Your task to perform on an android device: open app "Speedtest by Ookla" (install if not already installed) and enter user name: "hyena@outlook.com" and password: "terminators" Image 0: 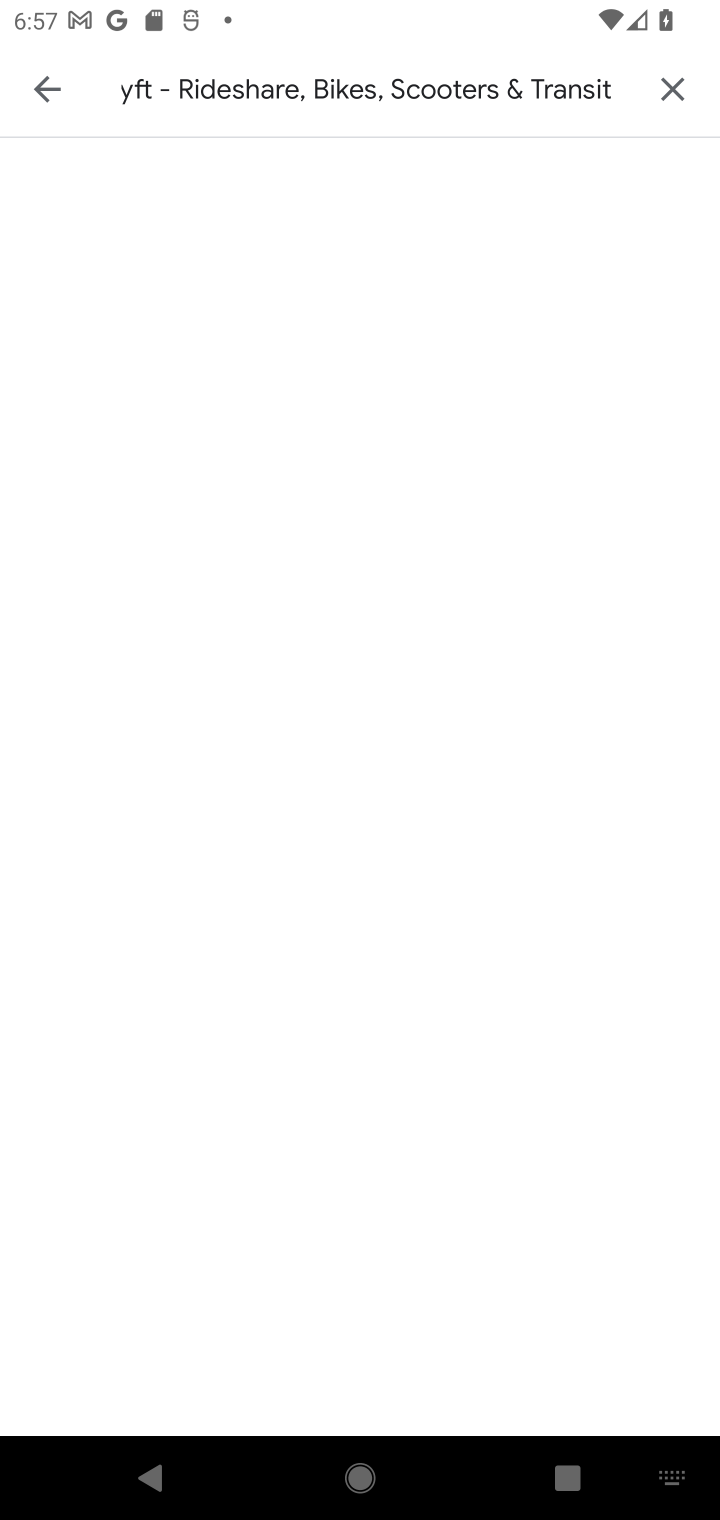
Step 0: press home button
Your task to perform on an android device: open app "Speedtest by Ookla" (install if not already installed) and enter user name: "hyena@outlook.com" and password: "terminators" Image 1: 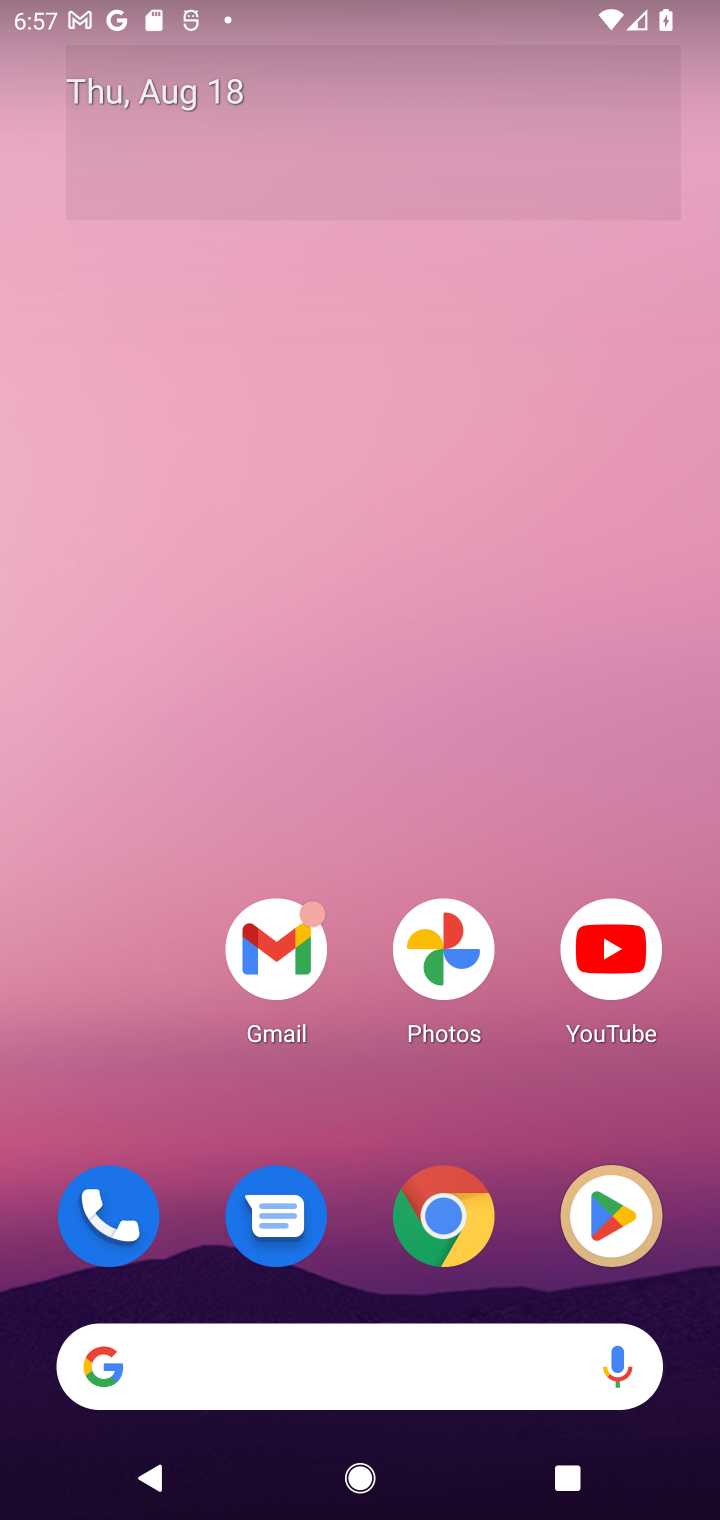
Step 1: drag from (536, 1273) to (500, 327)
Your task to perform on an android device: open app "Speedtest by Ookla" (install if not already installed) and enter user name: "hyena@outlook.com" and password: "terminators" Image 2: 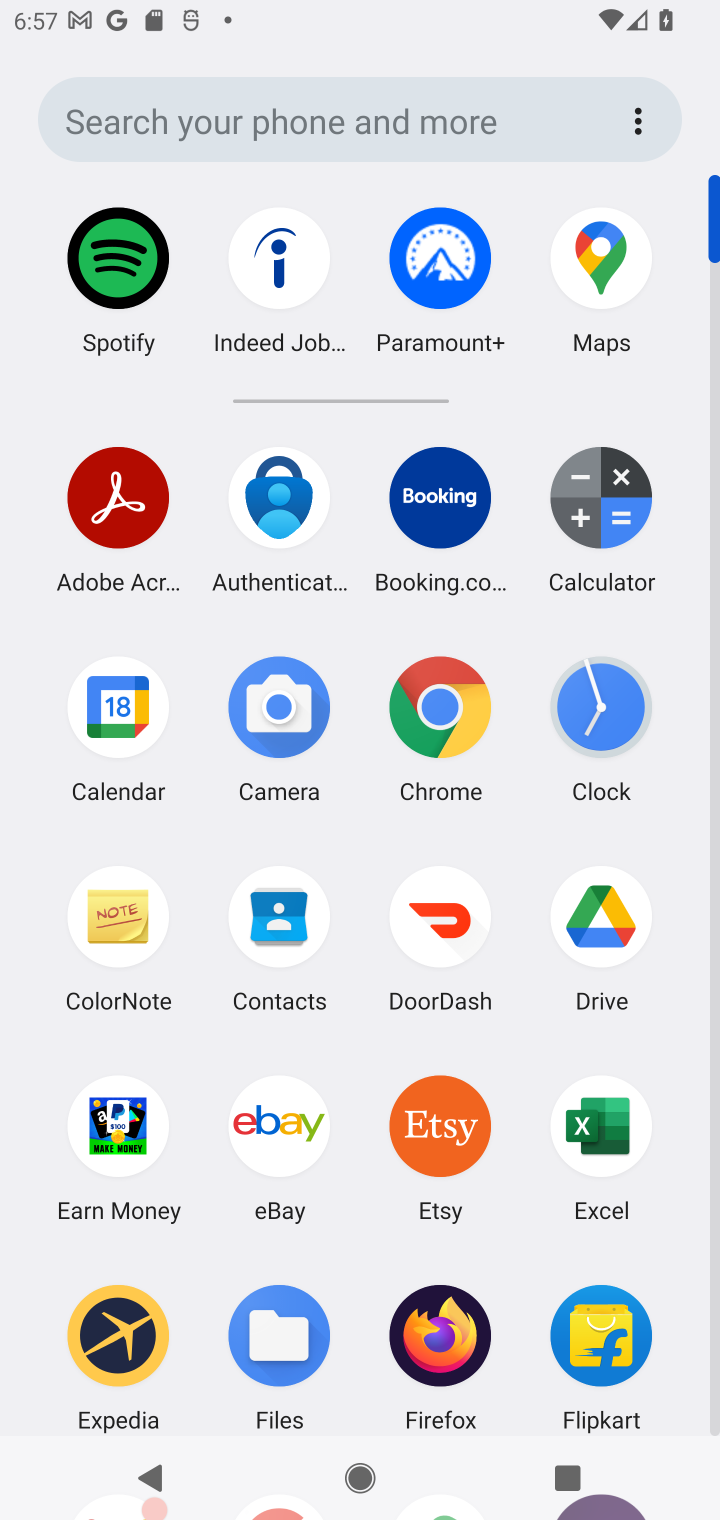
Step 2: drag from (526, 1289) to (528, 651)
Your task to perform on an android device: open app "Speedtest by Ookla" (install if not already installed) and enter user name: "hyena@outlook.com" and password: "terminators" Image 3: 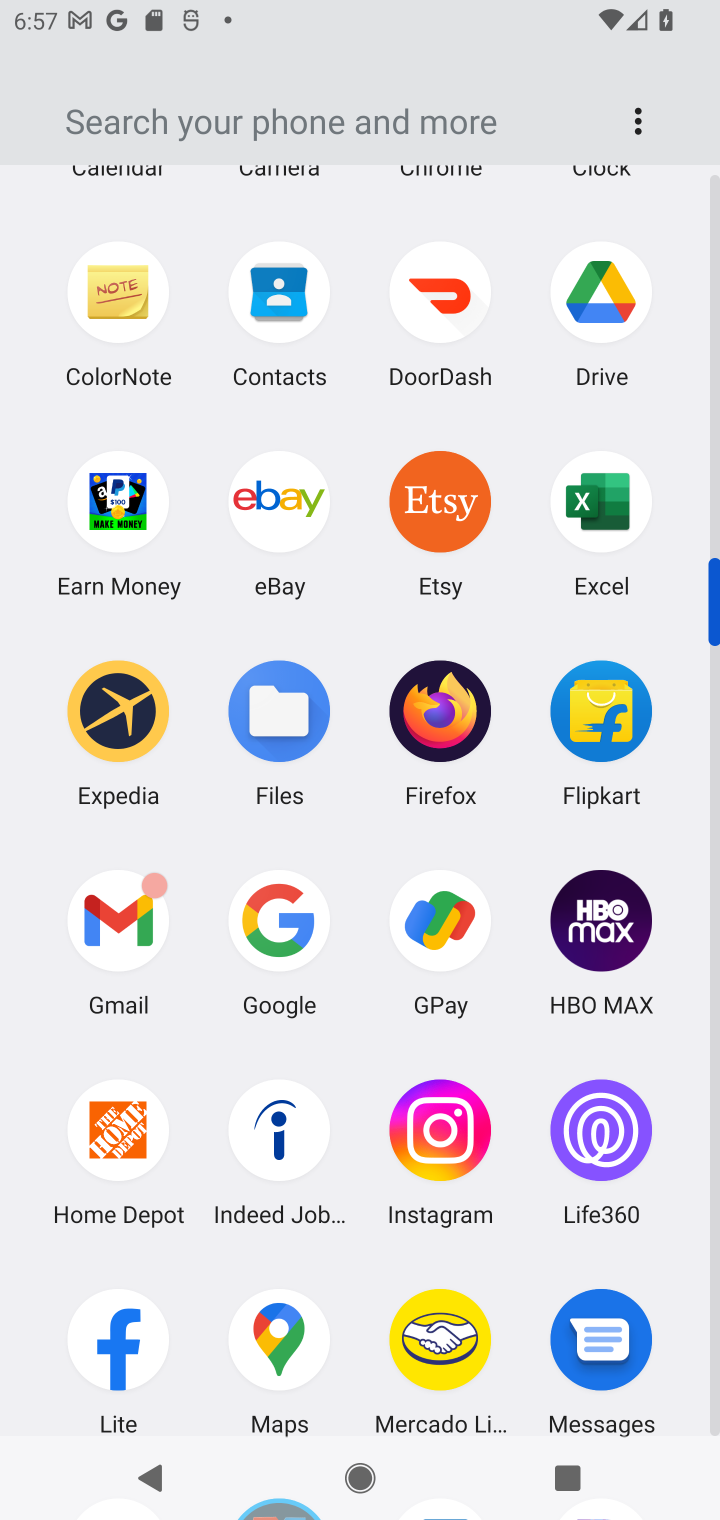
Step 3: drag from (523, 1254) to (527, 577)
Your task to perform on an android device: open app "Speedtest by Ookla" (install if not already installed) and enter user name: "hyena@outlook.com" and password: "terminators" Image 4: 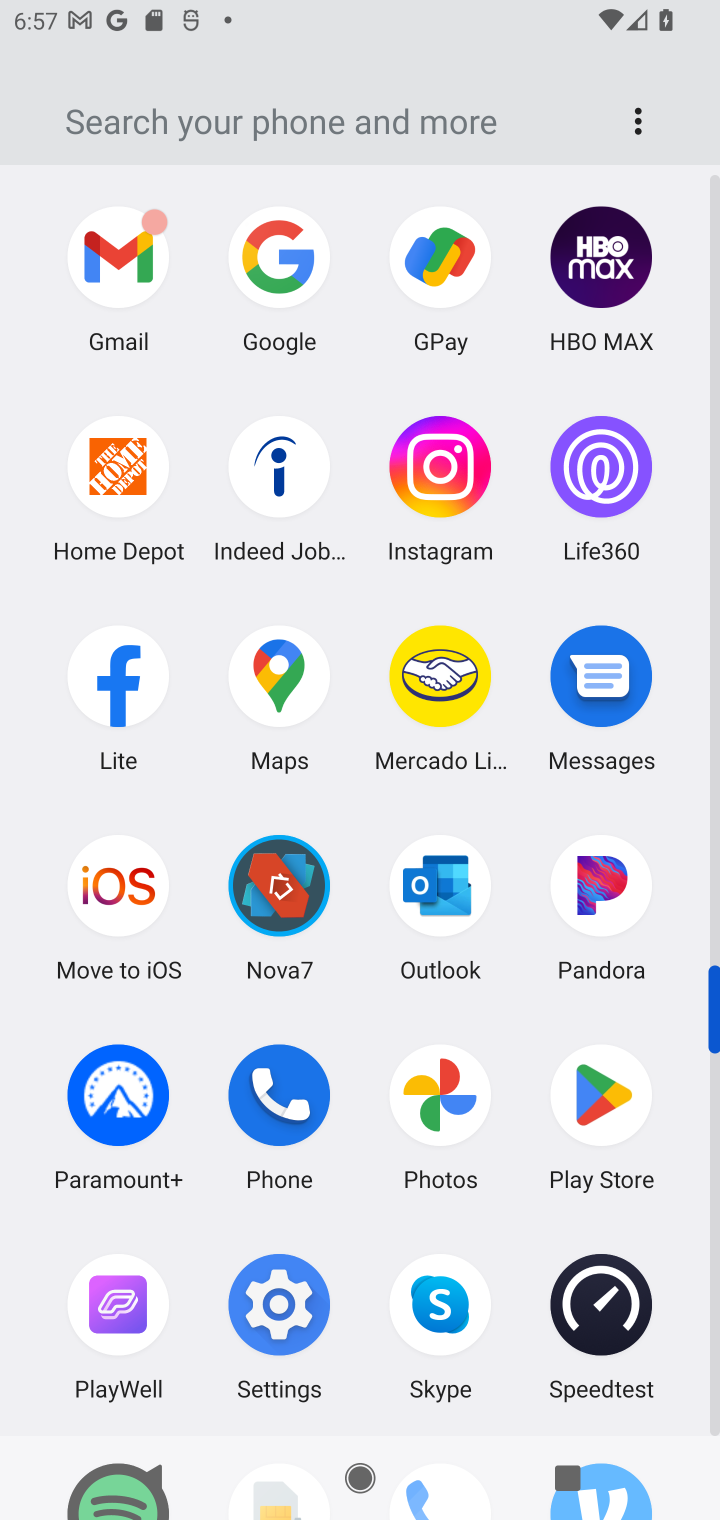
Step 4: click (601, 1307)
Your task to perform on an android device: open app "Speedtest by Ookla" (install if not already installed) and enter user name: "hyena@outlook.com" and password: "terminators" Image 5: 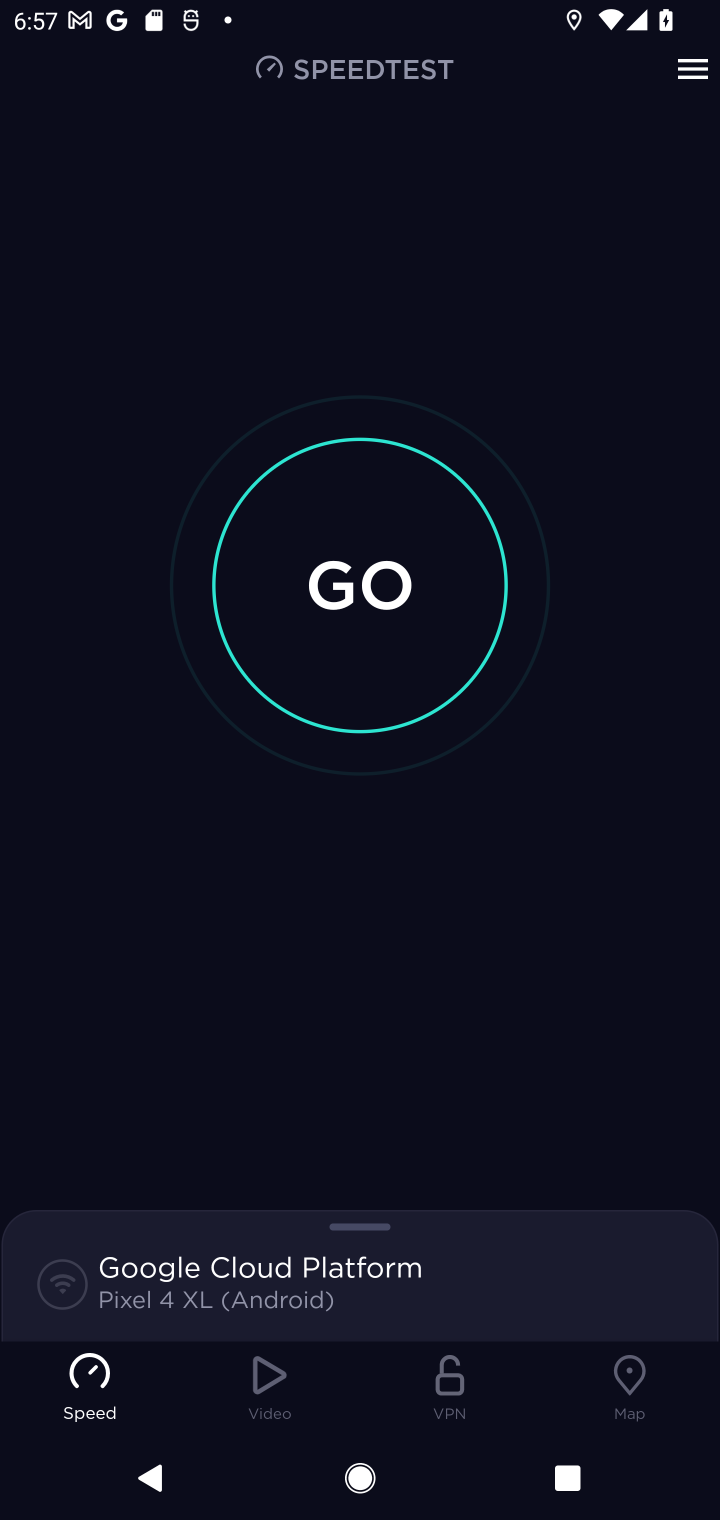
Step 5: click (673, 75)
Your task to perform on an android device: open app "Speedtest by Ookla" (install if not already installed) and enter user name: "hyena@outlook.com" and password: "terminators" Image 6: 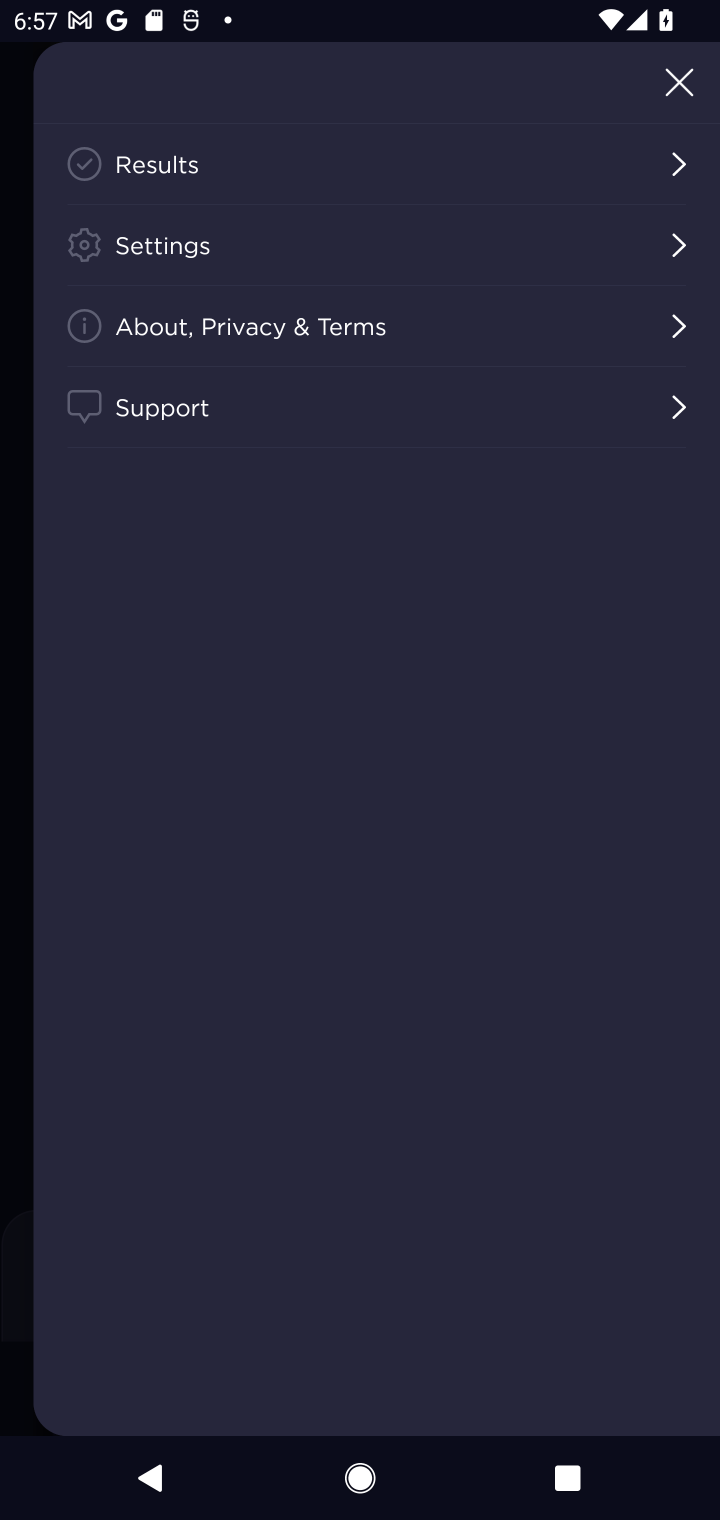
Step 6: click (668, 248)
Your task to perform on an android device: open app "Speedtest by Ookla" (install if not already installed) and enter user name: "hyena@outlook.com" and password: "terminators" Image 7: 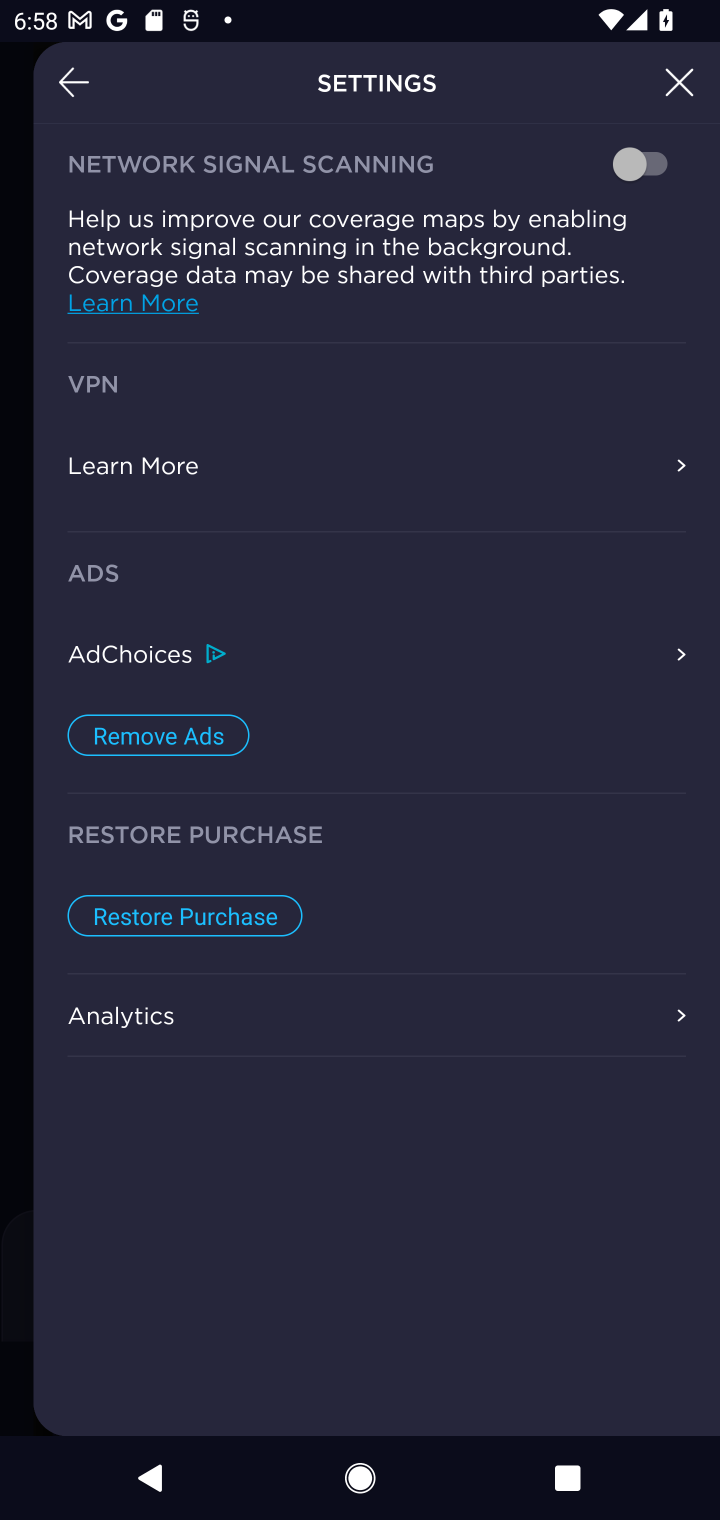
Step 7: click (677, 81)
Your task to perform on an android device: open app "Speedtest by Ookla" (install if not already installed) and enter user name: "hyena@outlook.com" and password: "terminators" Image 8: 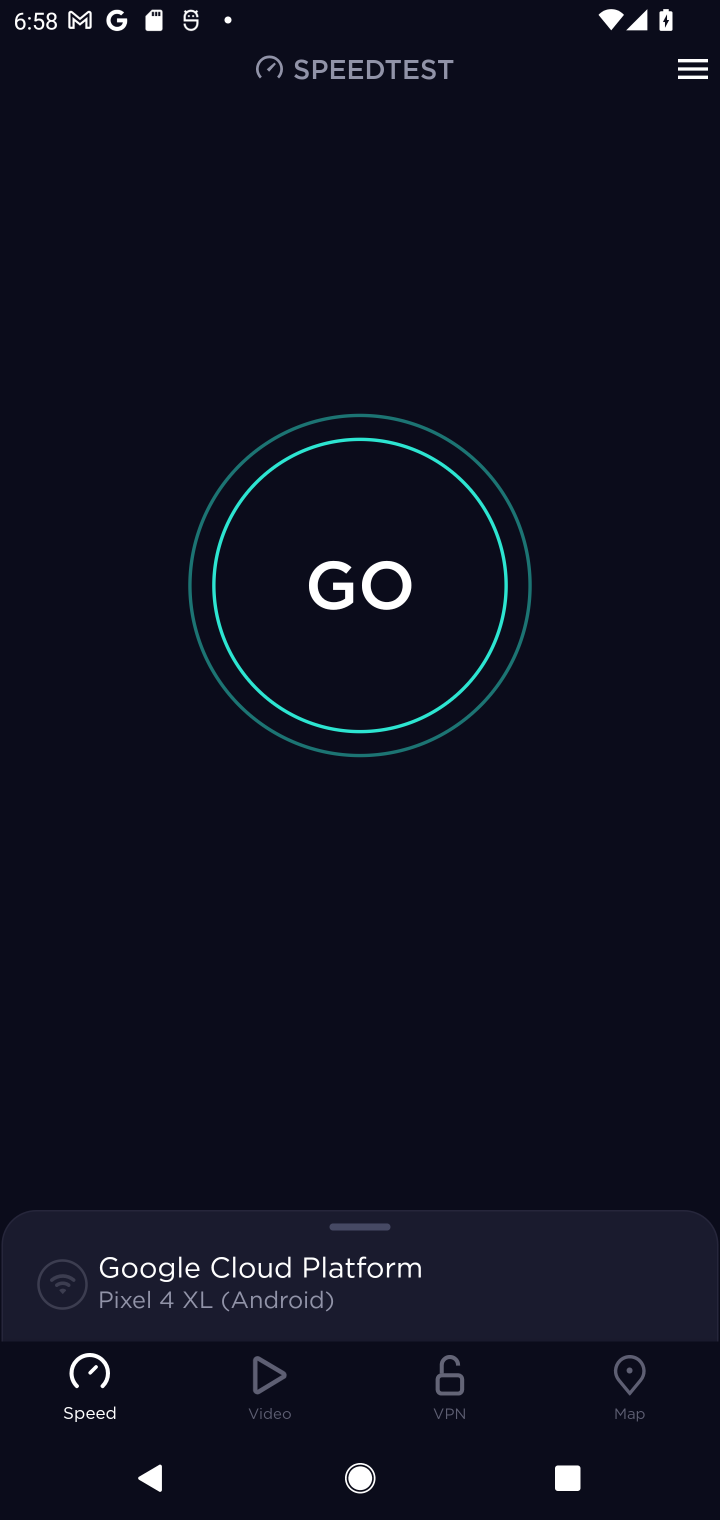
Step 8: click (283, 1377)
Your task to perform on an android device: open app "Speedtest by Ookla" (install if not already installed) and enter user name: "hyena@outlook.com" and password: "terminators" Image 9: 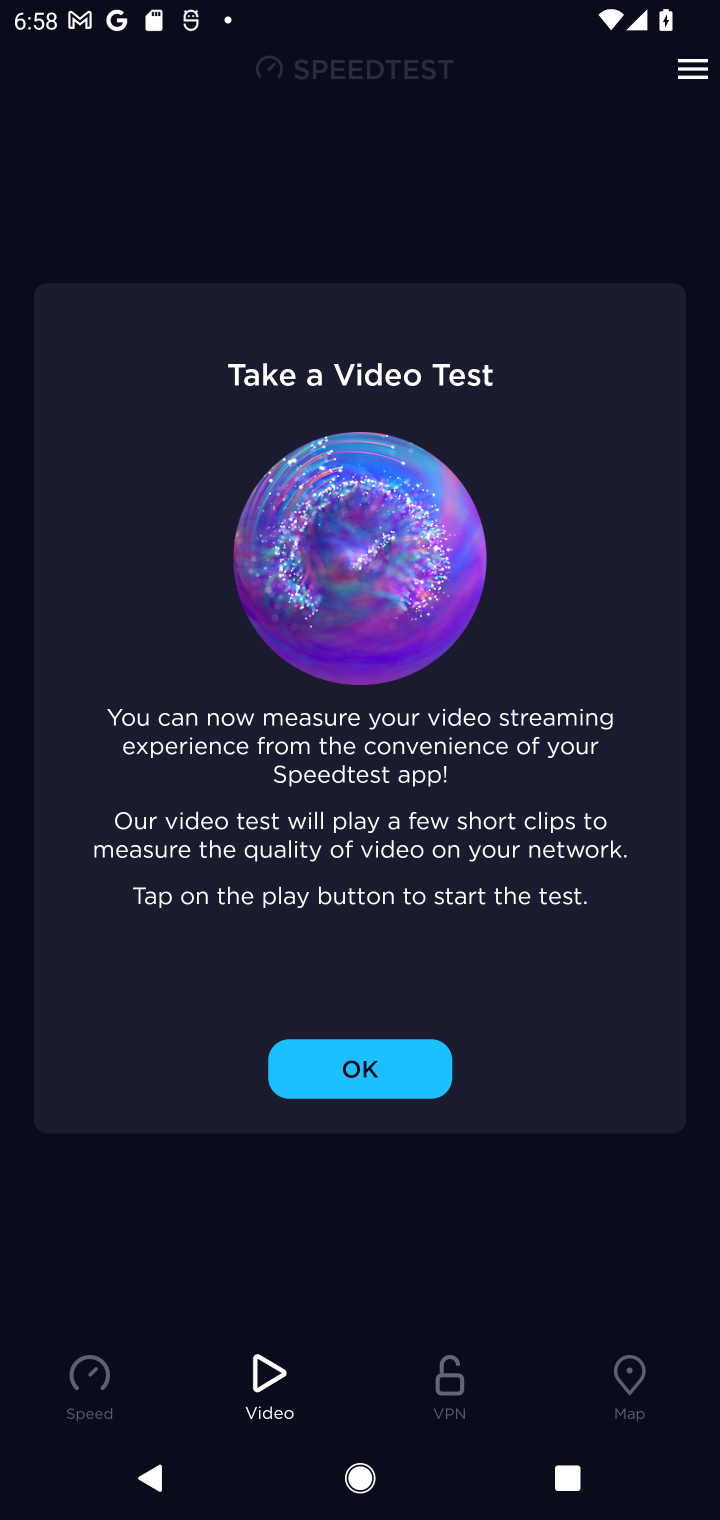
Step 9: click (445, 1383)
Your task to perform on an android device: open app "Speedtest by Ookla" (install if not already installed) and enter user name: "hyena@outlook.com" and password: "terminators" Image 10: 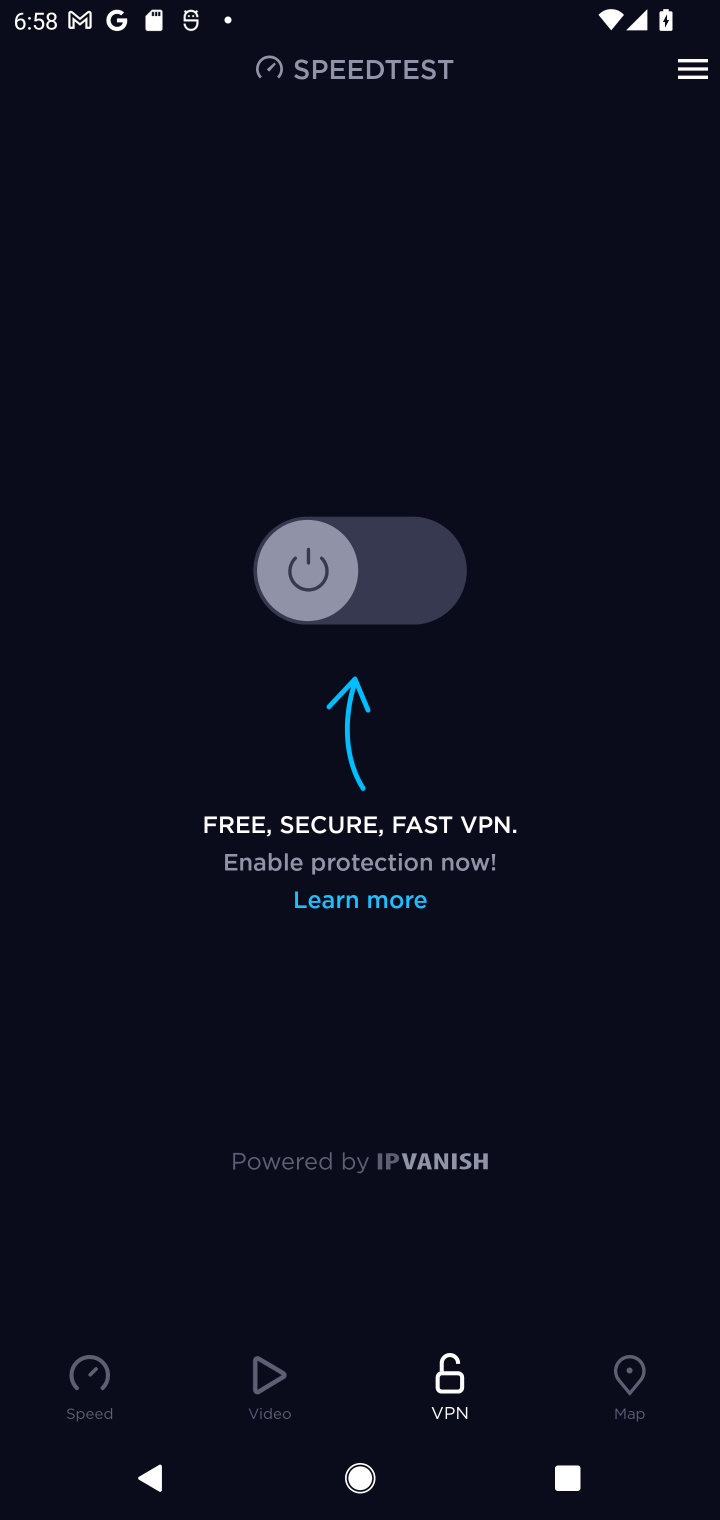
Step 10: click (619, 1389)
Your task to perform on an android device: open app "Speedtest by Ookla" (install if not already installed) and enter user name: "hyena@outlook.com" and password: "terminators" Image 11: 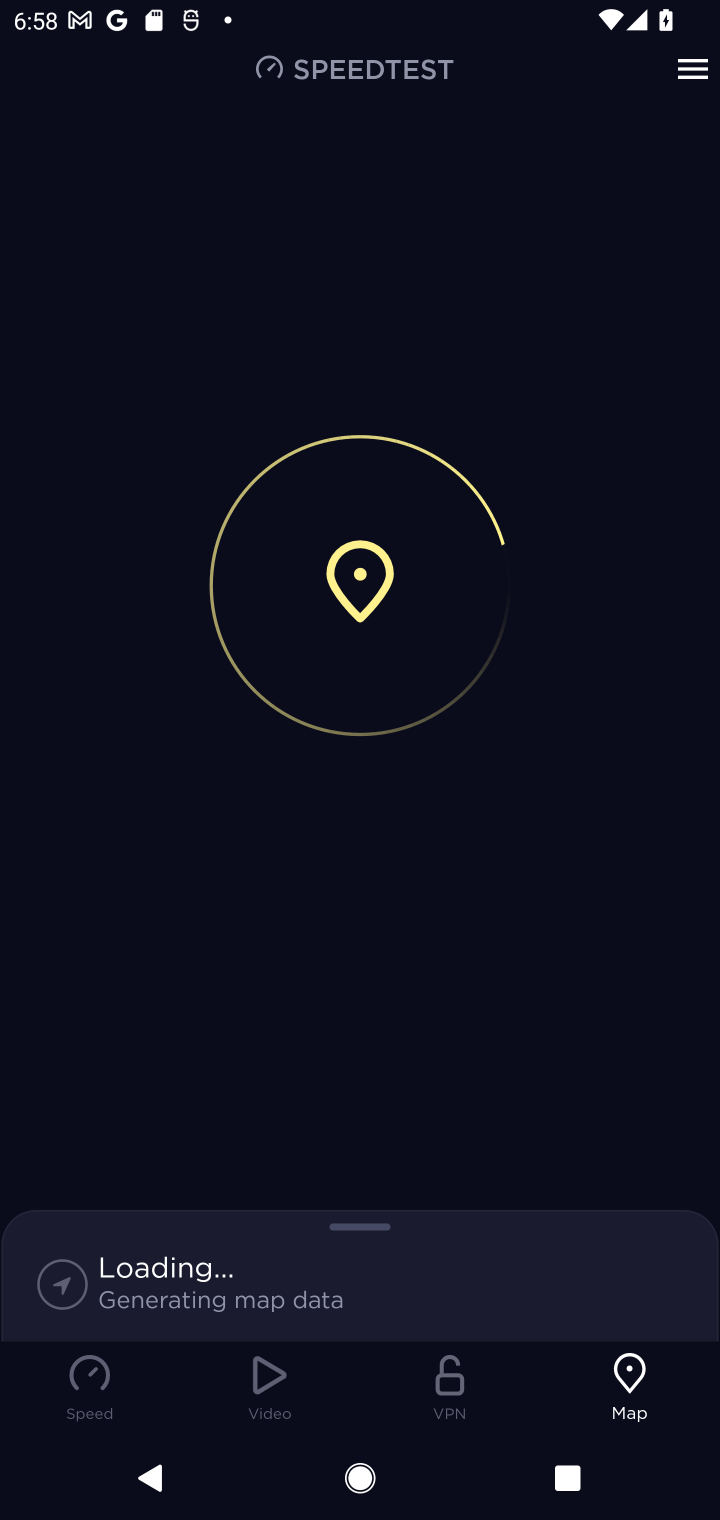
Step 11: click (104, 1391)
Your task to perform on an android device: open app "Speedtest by Ookla" (install if not already installed) and enter user name: "hyena@outlook.com" and password: "terminators" Image 12: 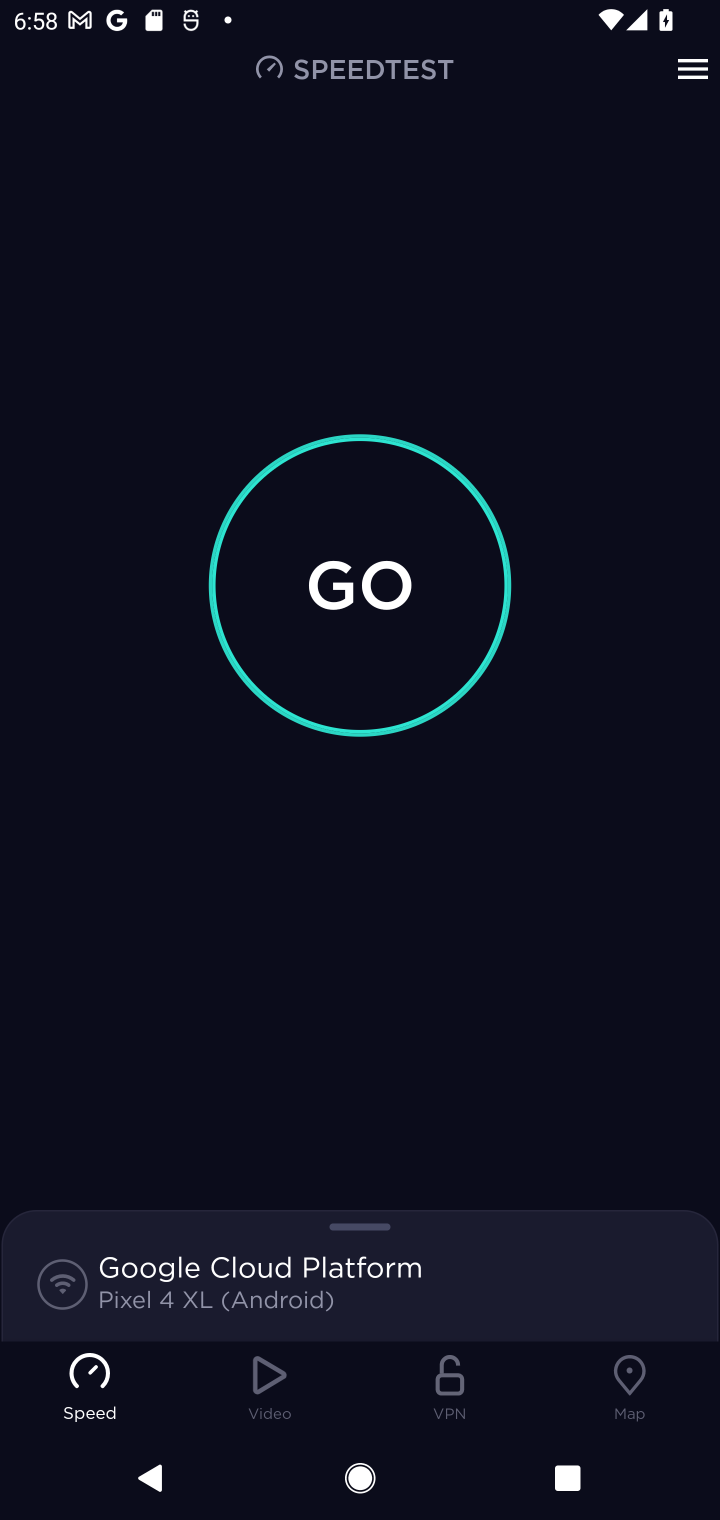
Step 12: task complete